Your task to perform on an android device: turn on improve location accuracy Image 0: 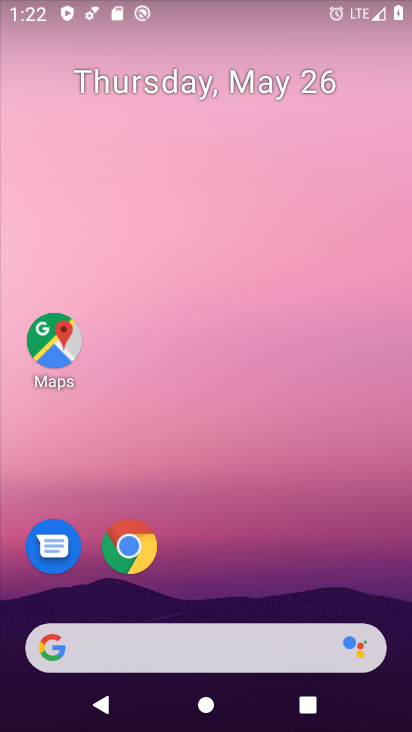
Step 0: drag from (393, 583) to (283, 159)
Your task to perform on an android device: turn on improve location accuracy Image 1: 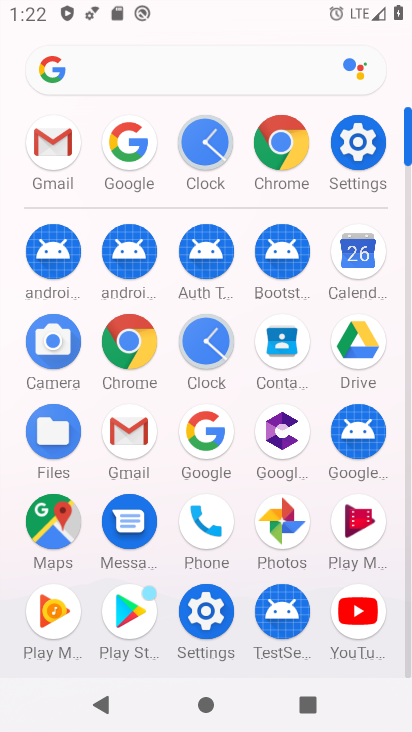
Step 1: click (213, 597)
Your task to perform on an android device: turn on improve location accuracy Image 2: 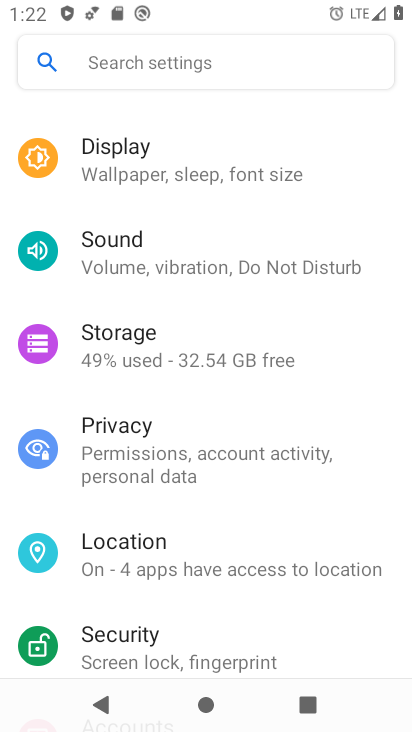
Step 2: click (181, 548)
Your task to perform on an android device: turn on improve location accuracy Image 3: 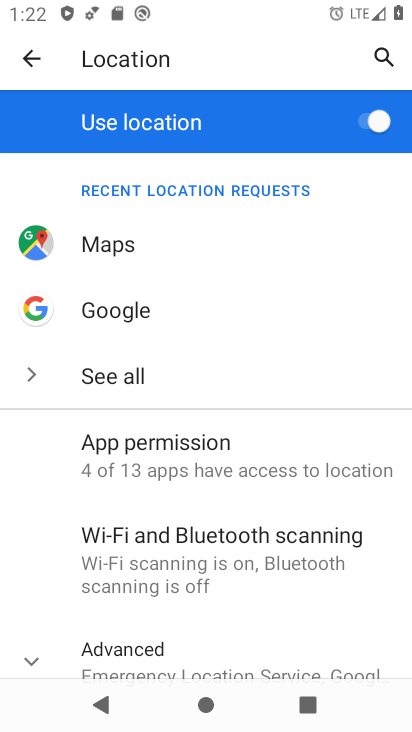
Step 3: drag from (168, 458) to (102, 165)
Your task to perform on an android device: turn on improve location accuracy Image 4: 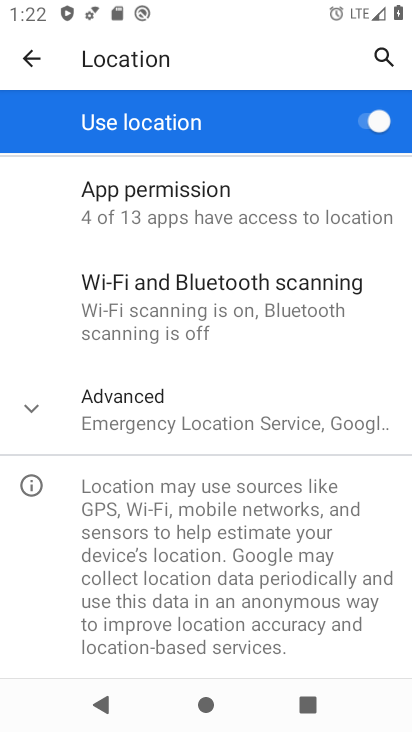
Step 4: click (204, 403)
Your task to perform on an android device: turn on improve location accuracy Image 5: 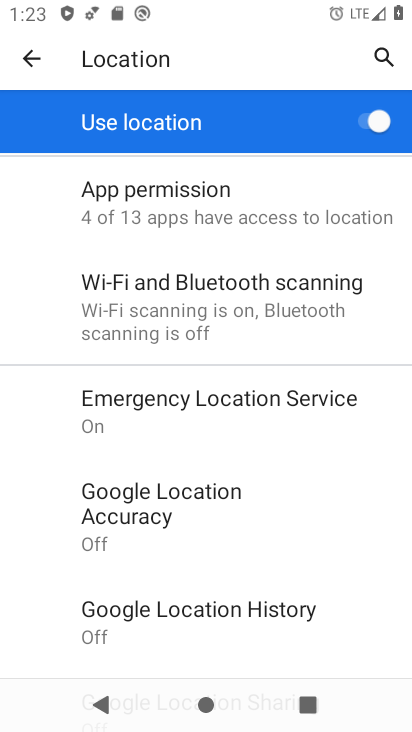
Step 5: click (135, 506)
Your task to perform on an android device: turn on improve location accuracy Image 6: 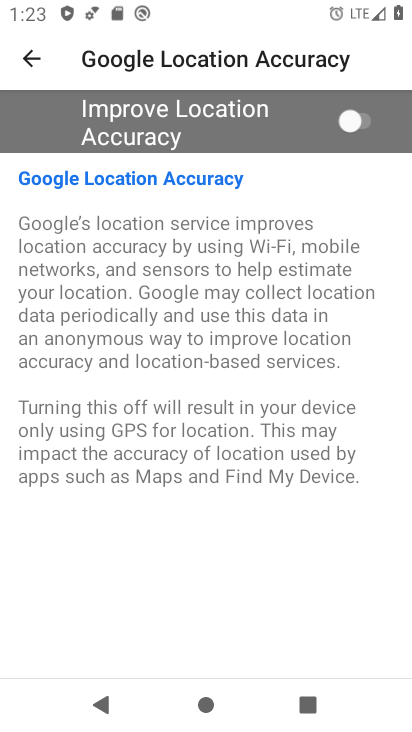
Step 6: click (368, 127)
Your task to perform on an android device: turn on improve location accuracy Image 7: 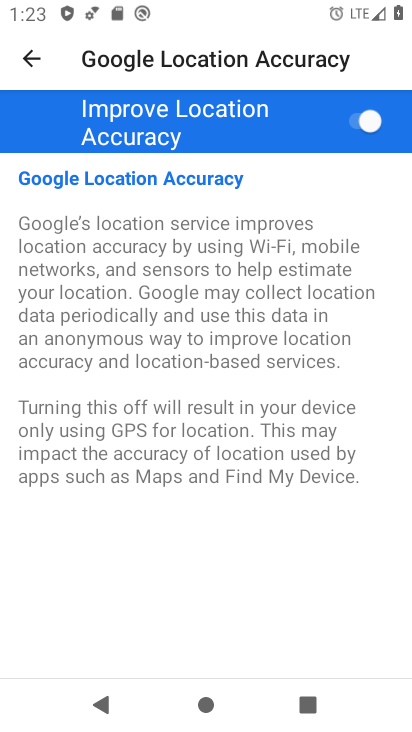
Step 7: task complete